Your task to perform on an android device: Go to Android settings Image 0: 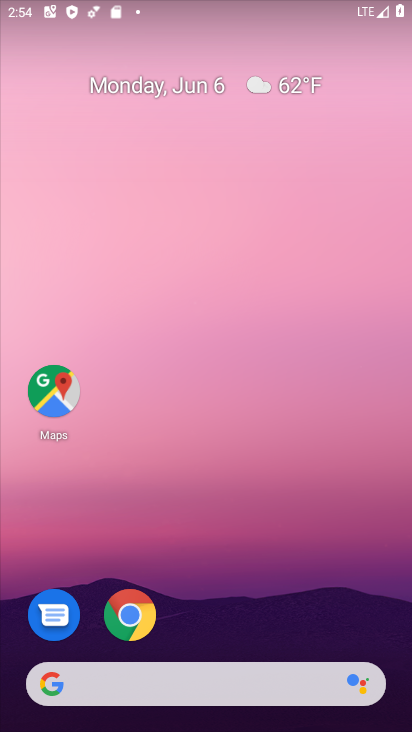
Step 0: drag from (279, 696) to (317, 24)
Your task to perform on an android device: Go to Android settings Image 1: 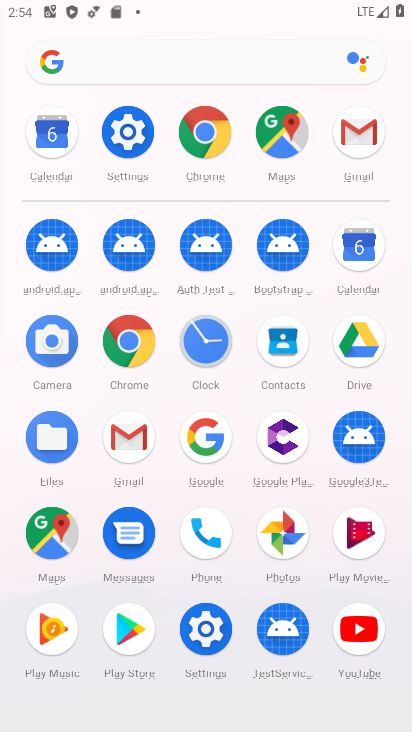
Step 1: click (118, 129)
Your task to perform on an android device: Go to Android settings Image 2: 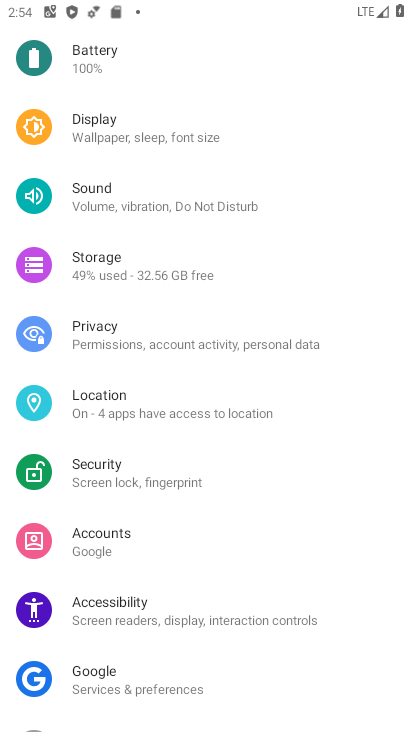
Step 2: drag from (175, 230) to (161, 712)
Your task to perform on an android device: Go to Android settings Image 3: 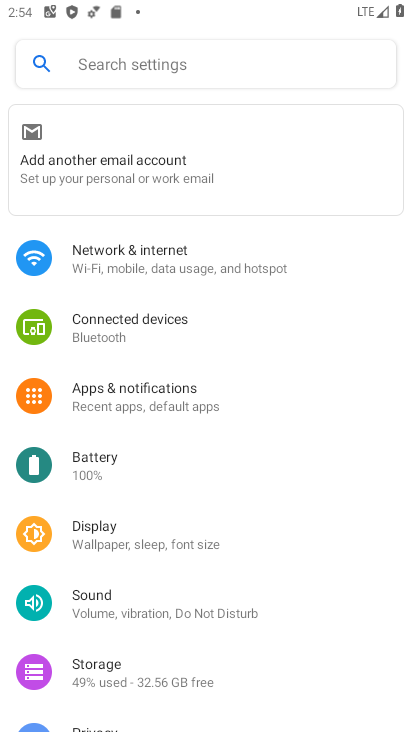
Step 3: drag from (125, 629) to (163, 157)
Your task to perform on an android device: Go to Android settings Image 4: 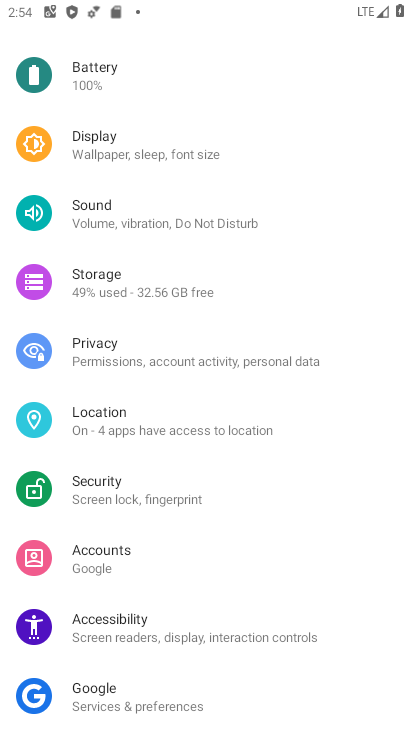
Step 4: drag from (239, 611) to (249, 108)
Your task to perform on an android device: Go to Android settings Image 5: 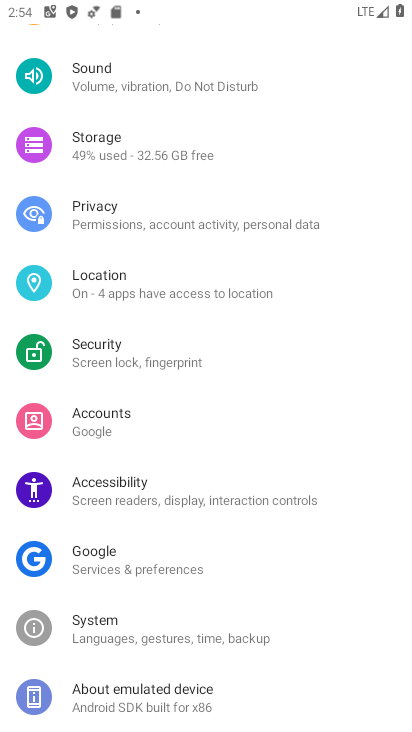
Step 5: click (171, 676)
Your task to perform on an android device: Go to Android settings Image 6: 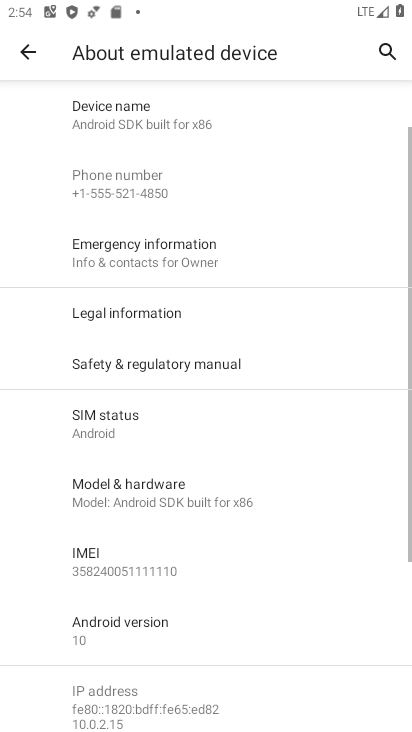
Step 6: drag from (212, 342) to (210, 622)
Your task to perform on an android device: Go to Android settings Image 7: 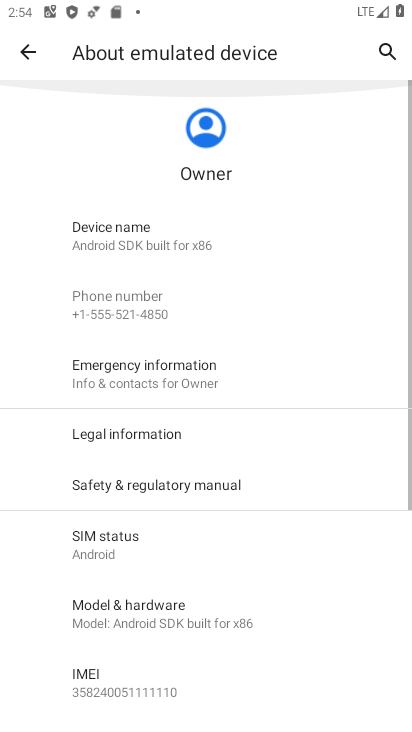
Step 7: drag from (205, 681) to (251, 240)
Your task to perform on an android device: Go to Android settings Image 8: 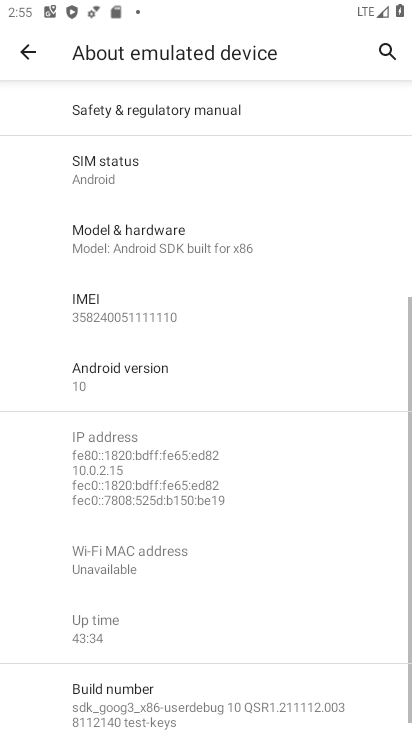
Step 8: drag from (214, 670) to (212, 361)
Your task to perform on an android device: Go to Android settings Image 9: 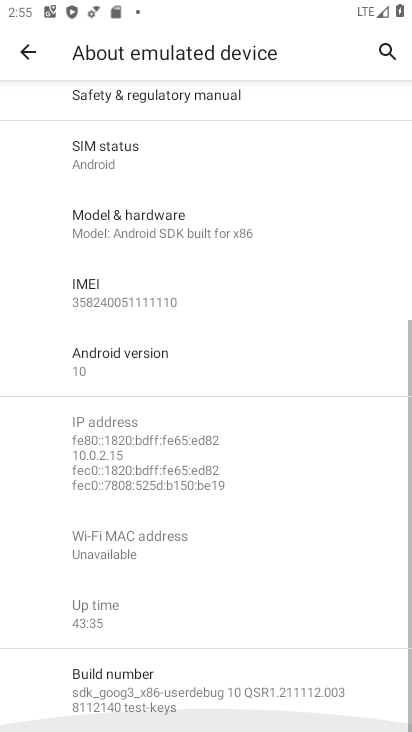
Step 9: click (160, 354)
Your task to perform on an android device: Go to Android settings Image 10: 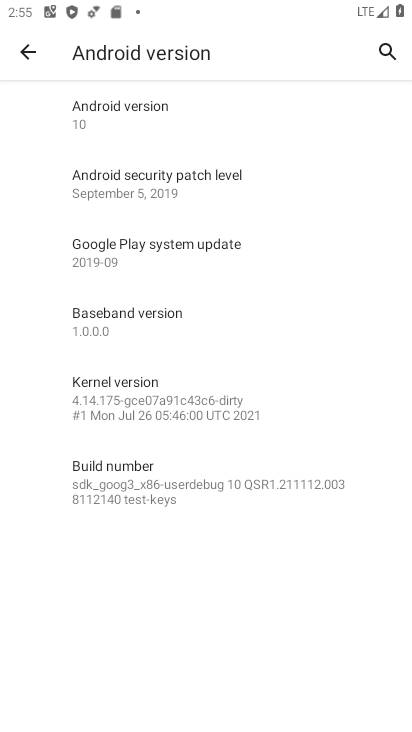
Step 10: task complete